Your task to perform on an android device: delete location history Image 0: 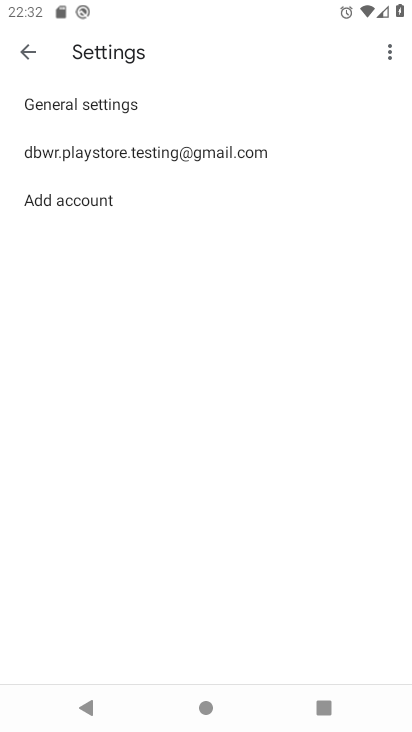
Step 0: press home button
Your task to perform on an android device: delete location history Image 1: 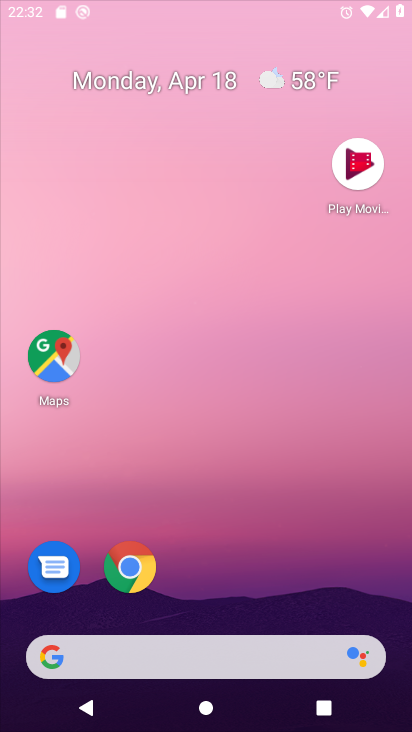
Step 1: drag from (245, 327) to (273, 16)
Your task to perform on an android device: delete location history Image 2: 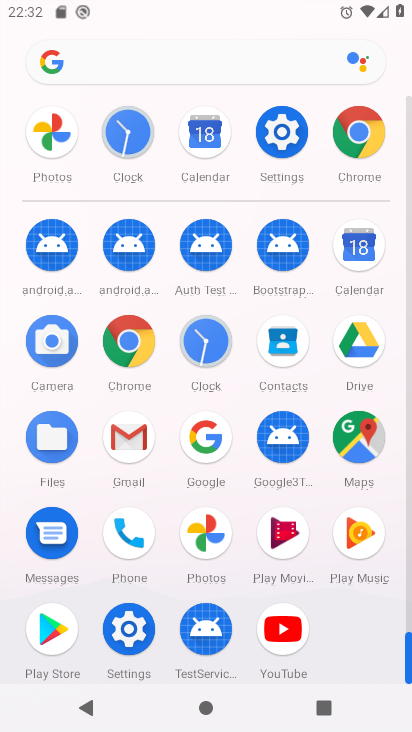
Step 2: click (129, 637)
Your task to perform on an android device: delete location history Image 3: 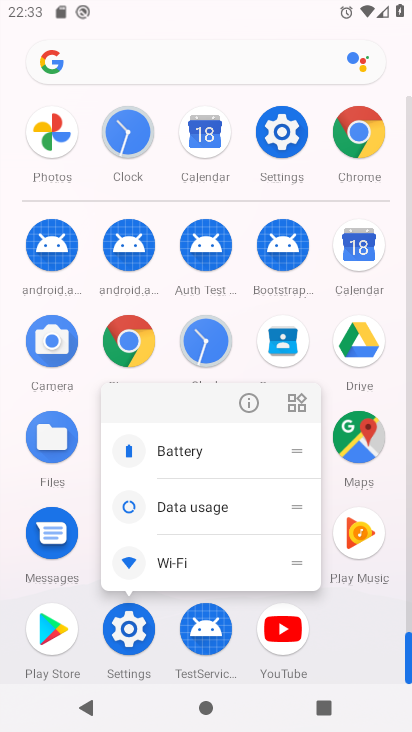
Step 3: click (247, 397)
Your task to perform on an android device: delete location history Image 4: 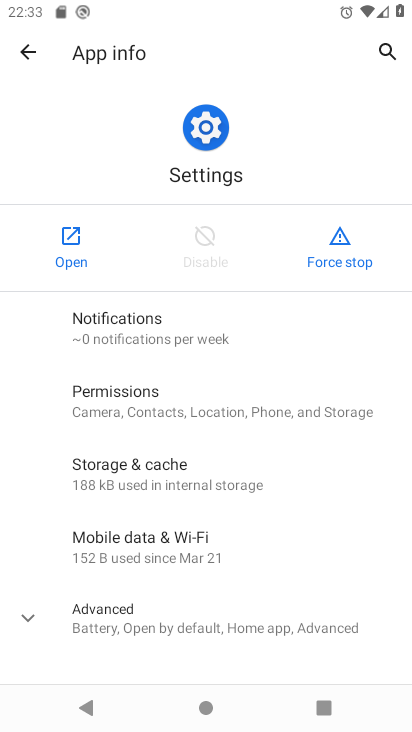
Step 4: click (77, 226)
Your task to perform on an android device: delete location history Image 5: 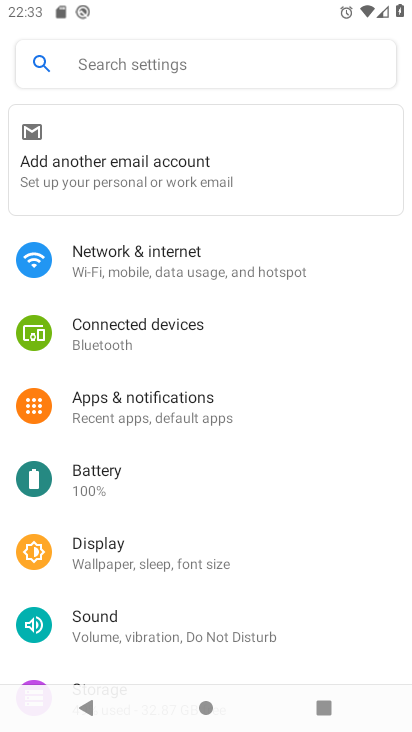
Step 5: drag from (195, 594) to (279, 80)
Your task to perform on an android device: delete location history Image 6: 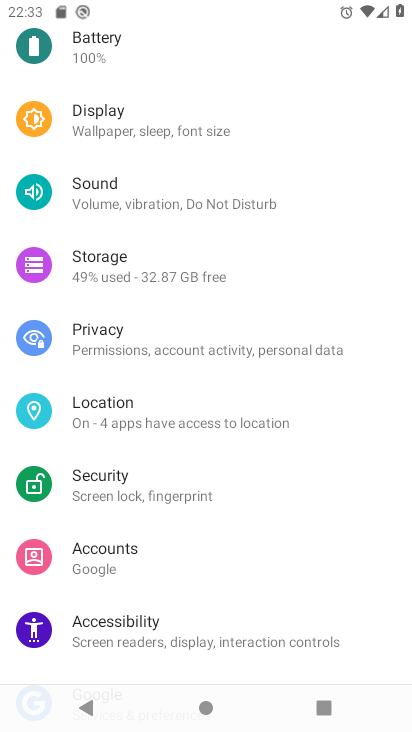
Step 6: drag from (152, 575) to (187, 242)
Your task to perform on an android device: delete location history Image 7: 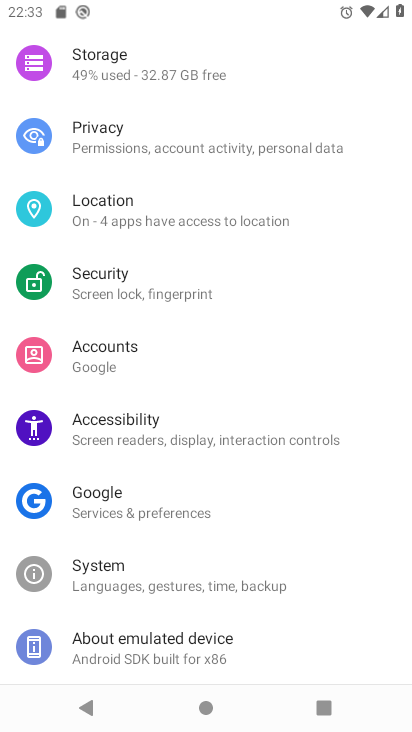
Step 7: click (149, 207)
Your task to perform on an android device: delete location history Image 8: 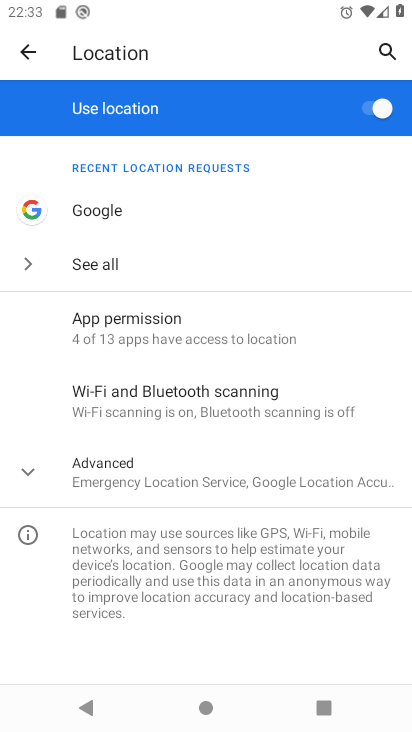
Step 8: click (170, 459)
Your task to perform on an android device: delete location history Image 9: 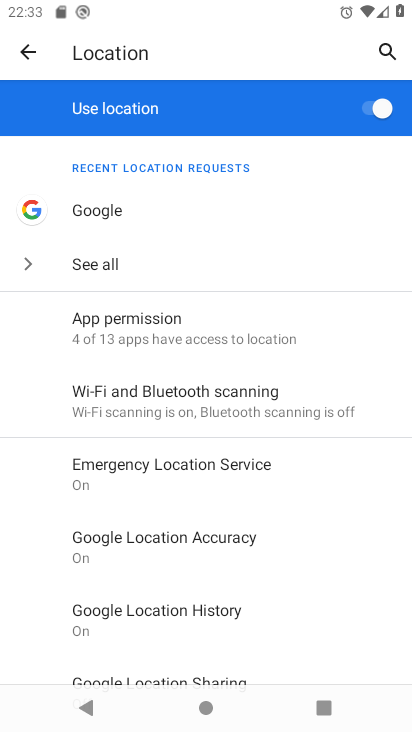
Step 9: click (192, 610)
Your task to perform on an android device: delete location history Image 10: 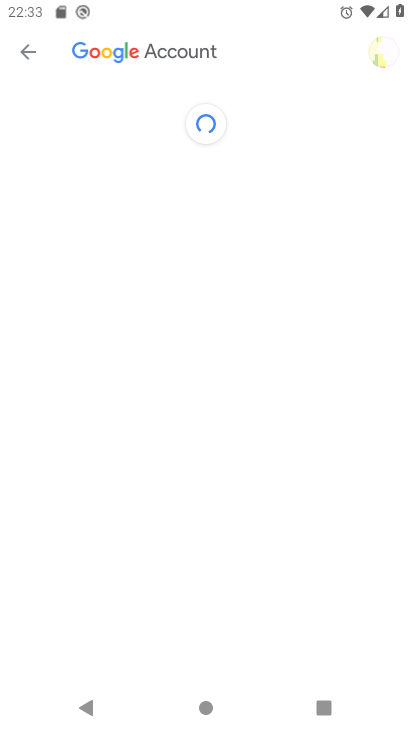
Step 10: drag from (215, 580) to (276, 304)
Your task to perform on an android device: delete location history Image 11: 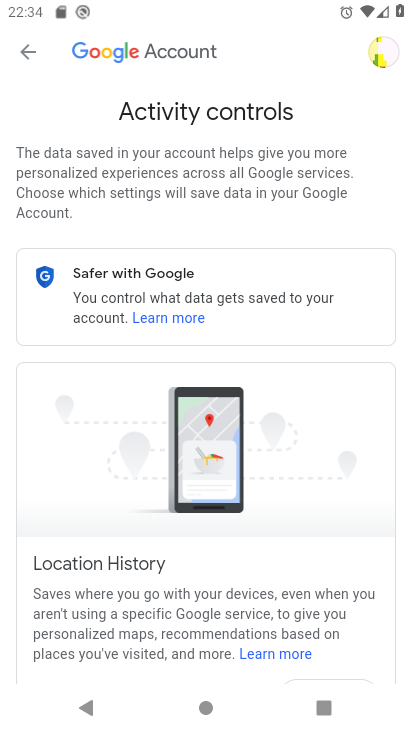
Step 11: drag from (180, 580) to (267, 122)
Your task to perform on an android device: delete location history Image 12: 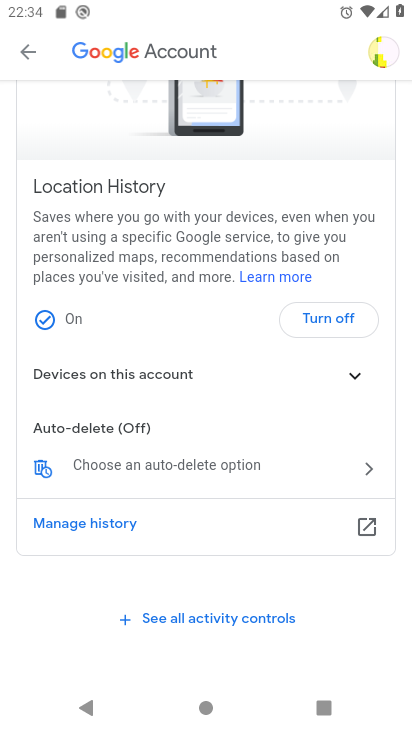
Step 12: drag from (213, 509) to (293, 220)
Your task to perform on an android device: delete location history Image 13: 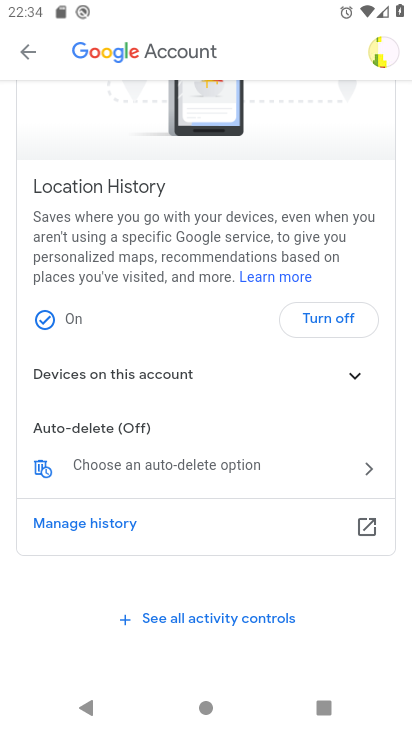
Step 13: drag from (205, 518) to (278, 303)
Your task to perform on an android device: delete location history Image 14: 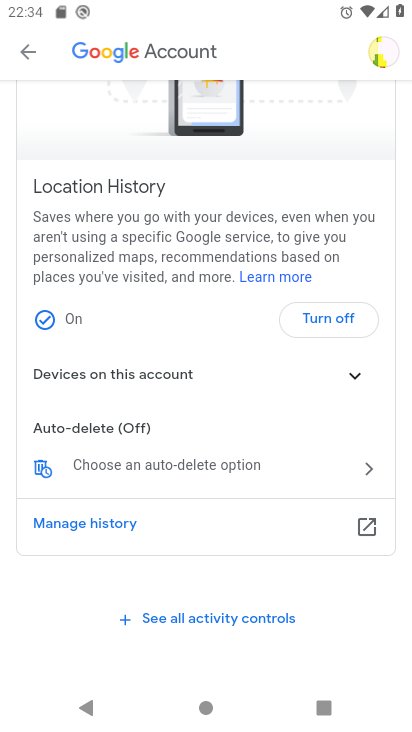
Step 14: click (38, 474)
Your task to perform on an android device: delete location history Image 15: 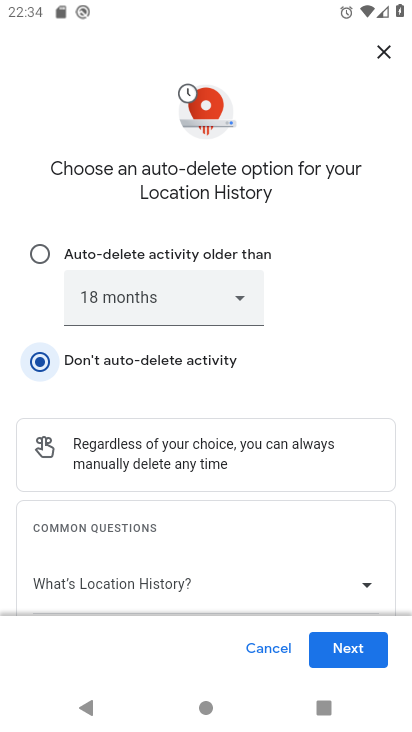
Step 15: drag from (119, 506) to (317, 101)
Your task to perform on an android device: delete location history Image 16: 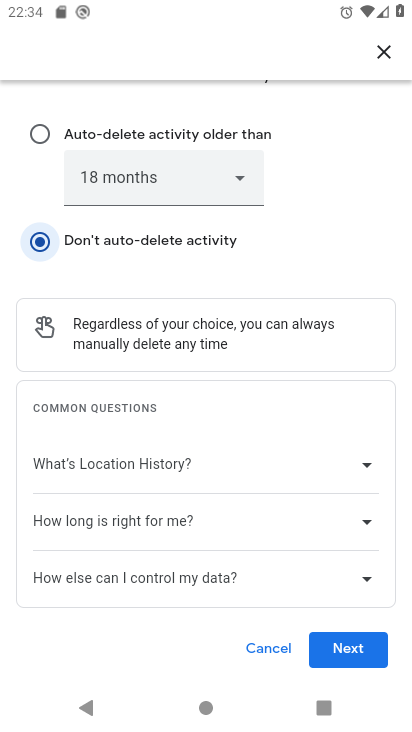
Step 16: click (354, 662)
Your task to perform on an android device: delete location history Image 17: 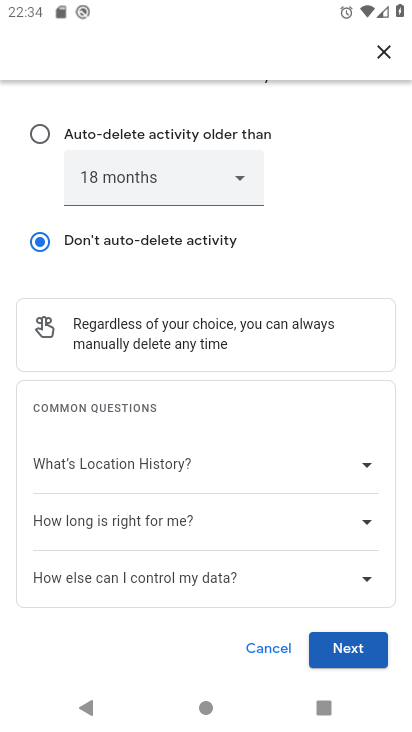
Step 17: click (349, 652)
Your task to perform on an android device: delete location history Image 18: 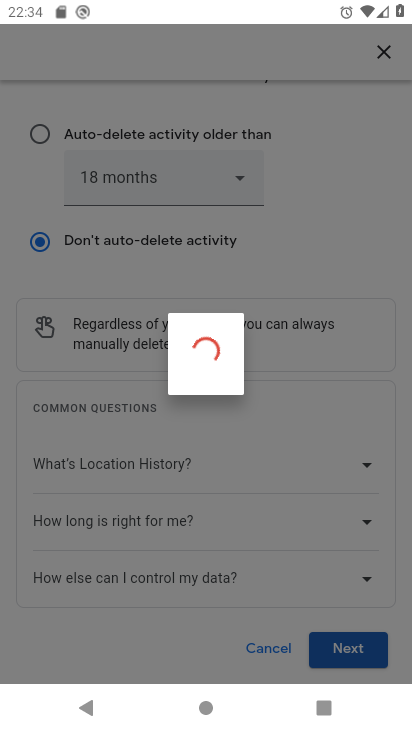
Step 18: click (362, 639)
Your task to perform on an android device: delete location history Image 19: 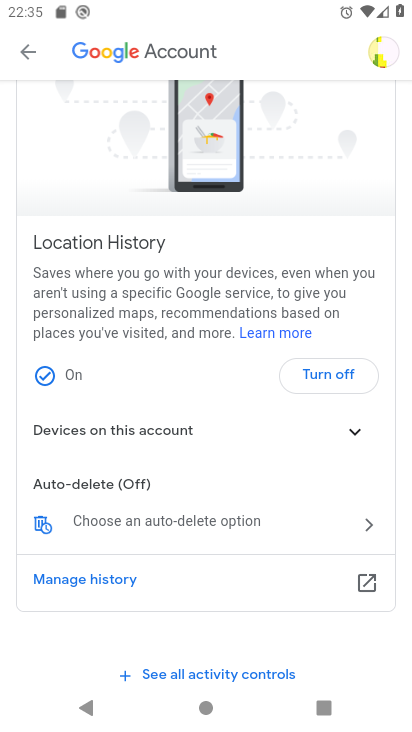
Step 19: task complete